Your task to perform on an android device: turn off location Image 0: 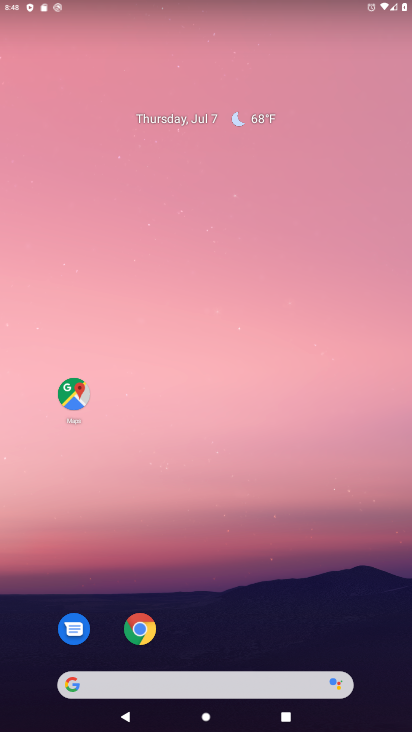
Step 0: drag from (209, 636) to (216, 150)
Your task to perform on an android device: turn off location Image 1: 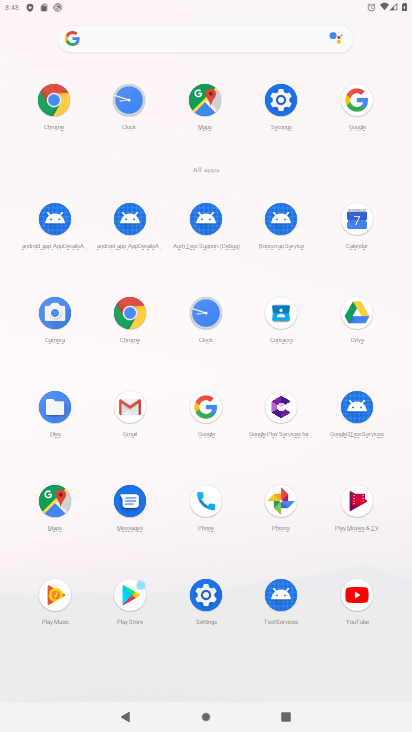
Step 1: click (284, 89)
Your task to perform on an android device: turn off location Image 2: 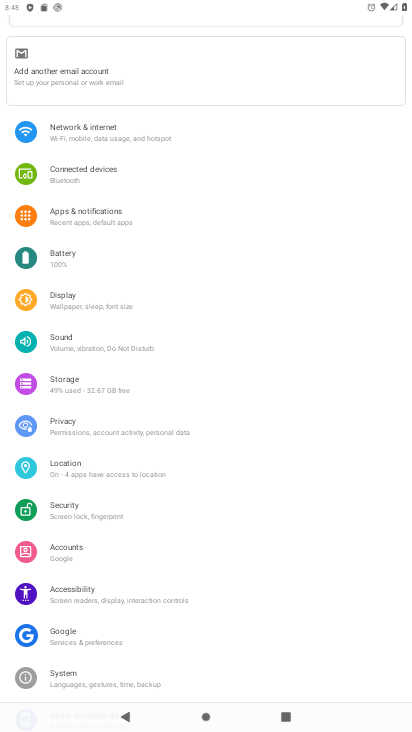
Step 2: click (134, 473)
Your task to perform on an android device: turn off location Image 3: 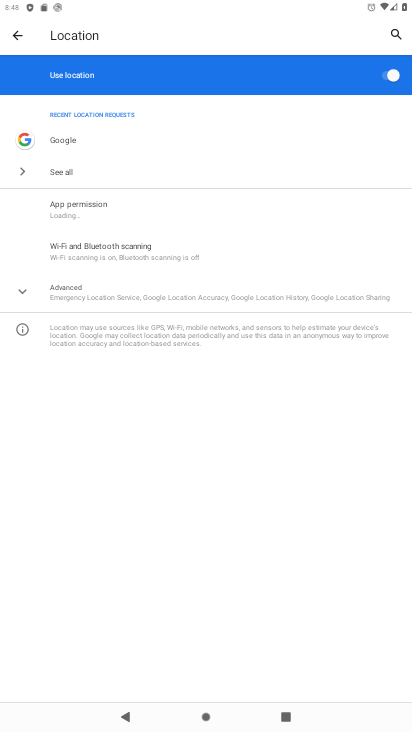
Step 3: click (385, 81)
Your task to perform on an android device: turn off location Image 4: 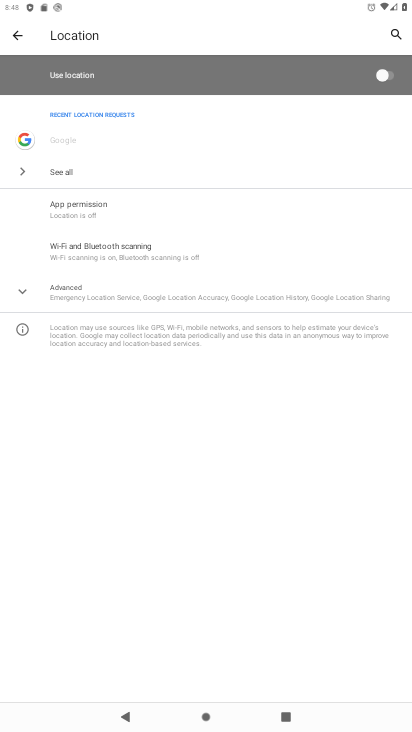
Step 4: task complete